Your task to perform on an android device: Open internet settings Image 0: 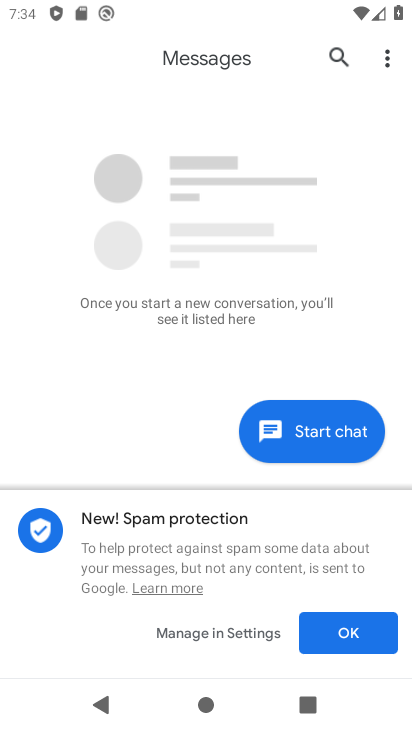
Step 0: press home button
Your task to perform on an android device: Open internet settings Image 1: 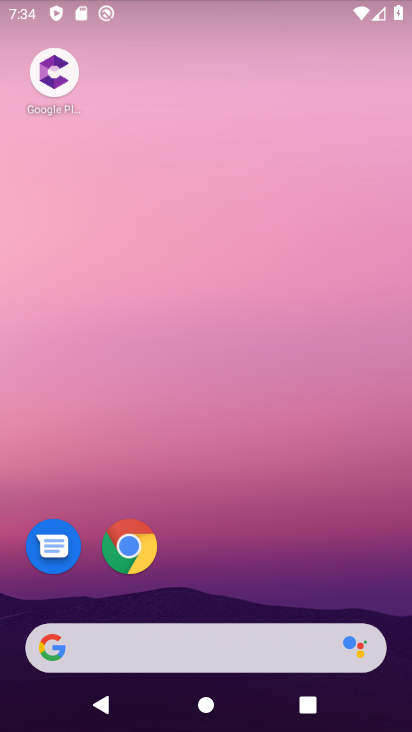
Step 1: drag from (387, 587) to (326, 80)
Your task to perform on an android device: Open internet settings Image 2: 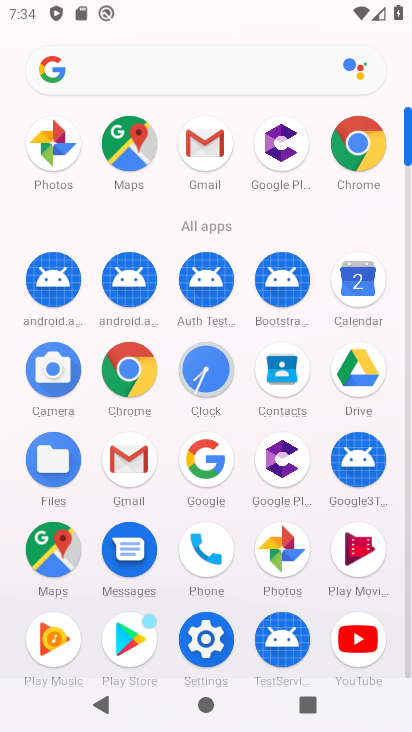
Step 2: click (200, 629)
Your task to perform on an android device: Open internet settings Image 3: 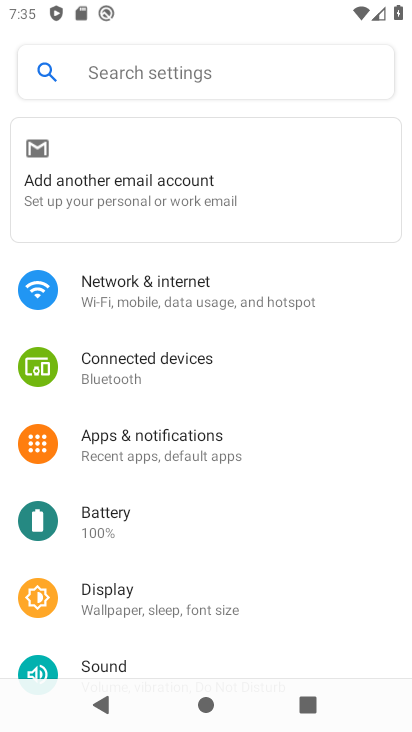
Step 3: drag from (231, 627) to (242, 568)
Your task to perform on an android device: Open internet settings Image 4: 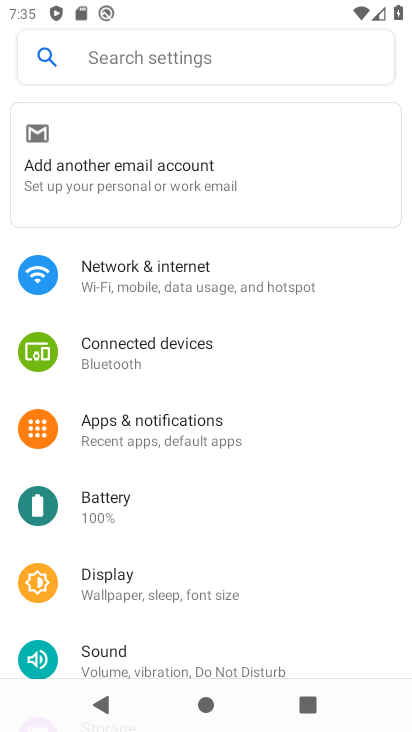
Step 4: click (284, 291)
Your task to perform on an android device: Open internet settings Image 5: 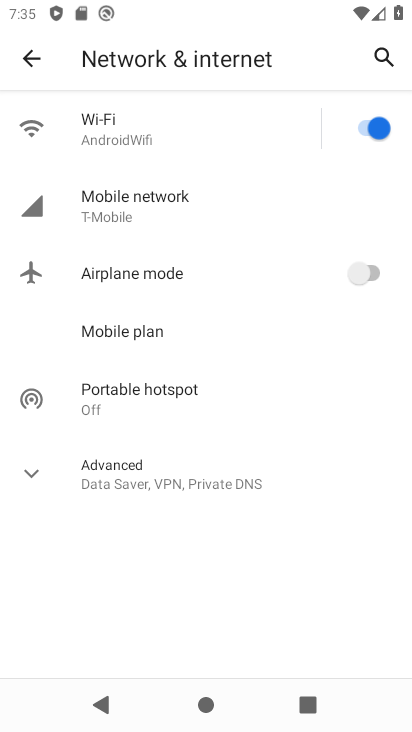
Step 5: task complete